Your task to perform on an android device: snooze an email in the gmail app Image 0: 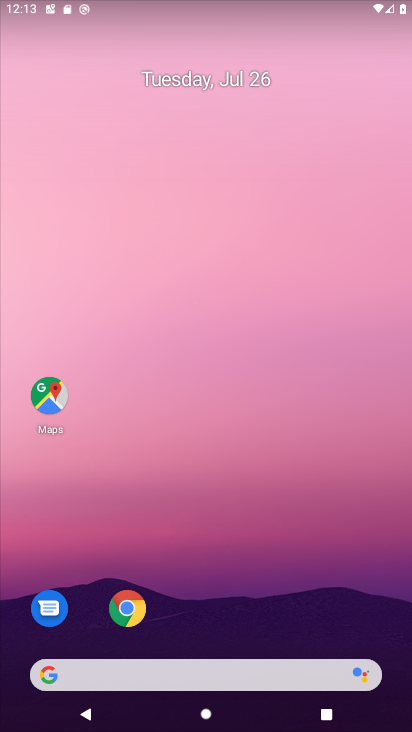
Step 0: click (195, 663)
Your task to perform on an android device: snooze an email in the gmail app Image 1: 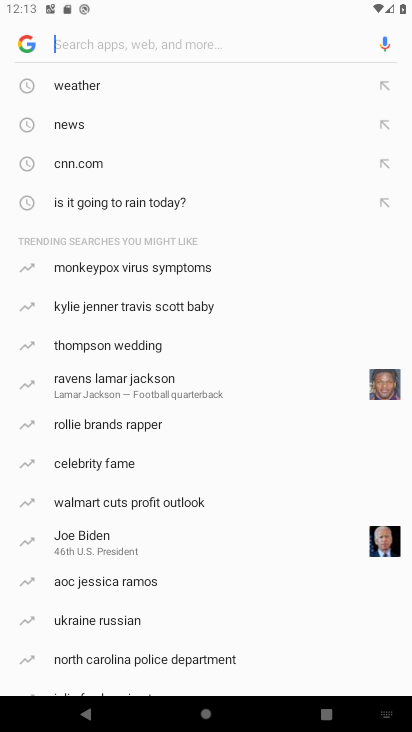
Step 1: click (100, 88)
Your task to perform on an android device: snooze an email in the gmail app Image 2: 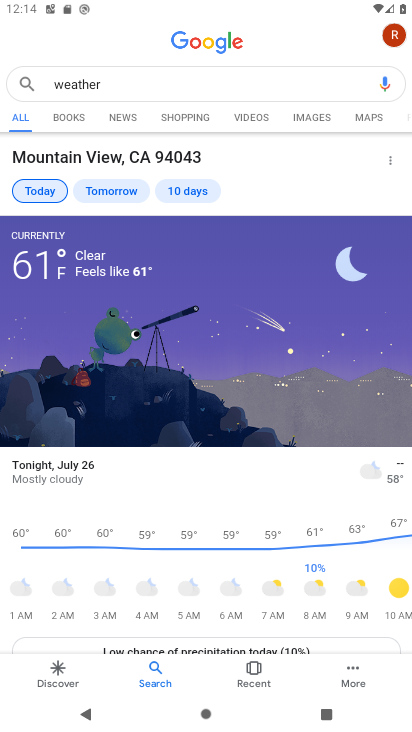
Step 2: click (100, 195)
Your task to perform on an android device: snooze an email in the gmail app Image 3: 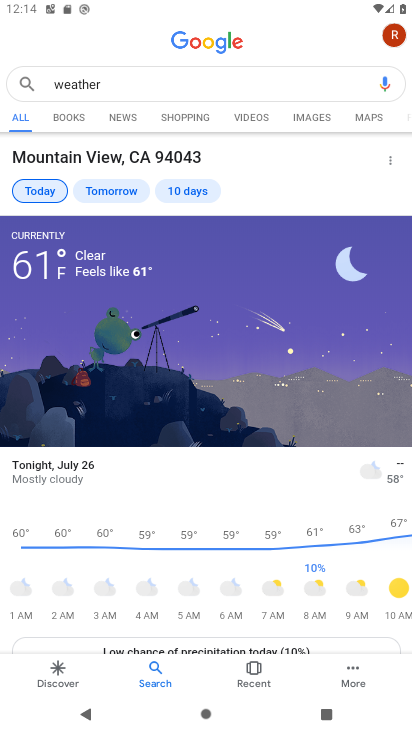
Step 3: click (109, 184)
Your task to perform on an android device: snooze an email in the gmail app Image 4: 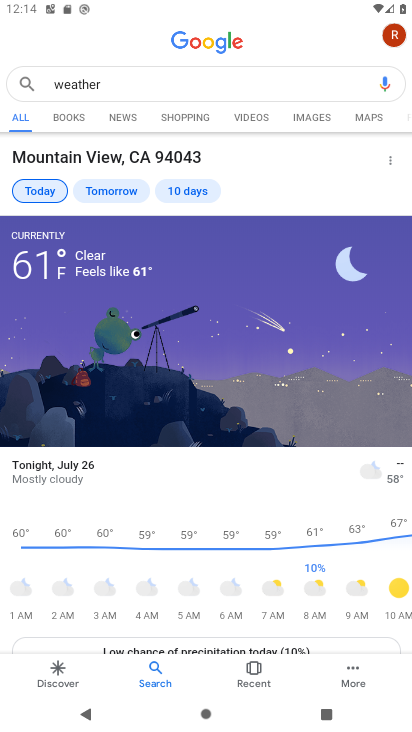
Step 4: click (109, 184)
Your task to perform on an android device: snooze an email in the gmail app Image 5: 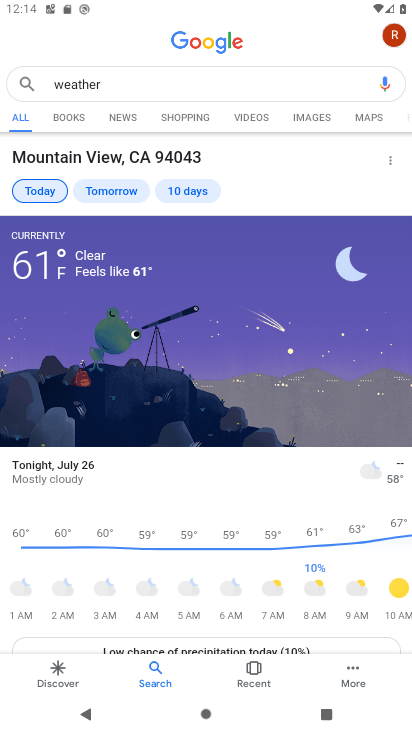
Step 5: click (109, 184)
Your task to perform on an android device: snooze an email in the gmail app Image 6: 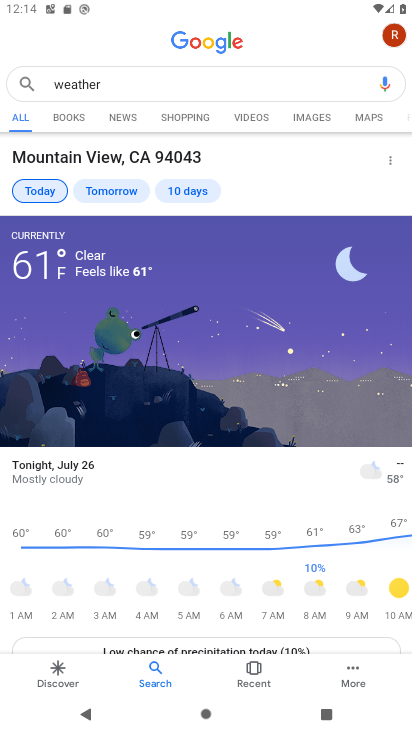
Step 6: click (109, 184)
Your task to perform on an android device: snooze an email in the gmail app Image 7: 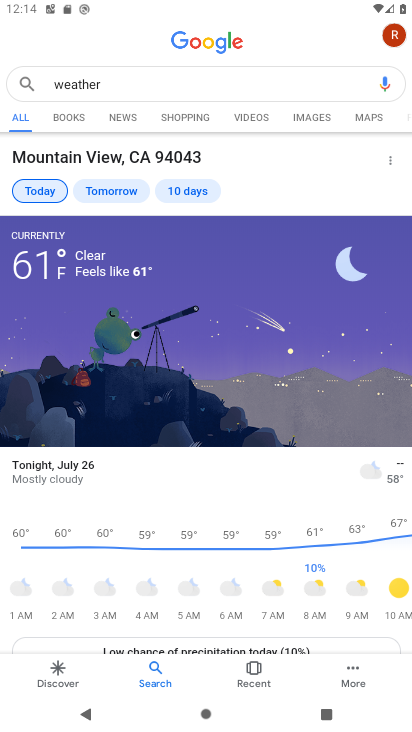
Step 7: click (135, 189)
Your task to perform on an android device: snooze an email in the gmail app Image 8: 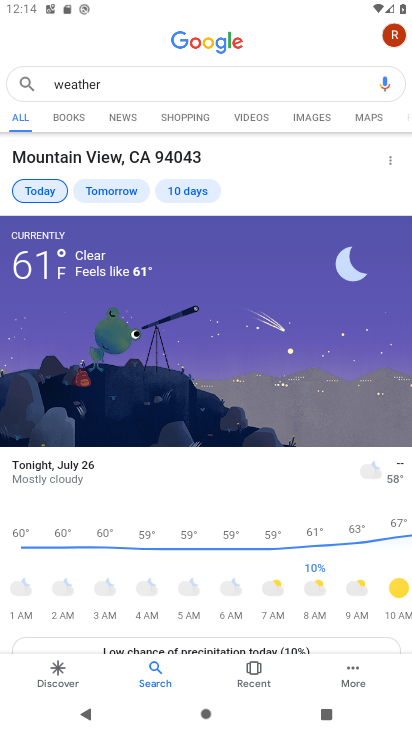
Step 8: click (135, 189)
Your task to perform on an android device: snooze an email in the gmail app Image 9: 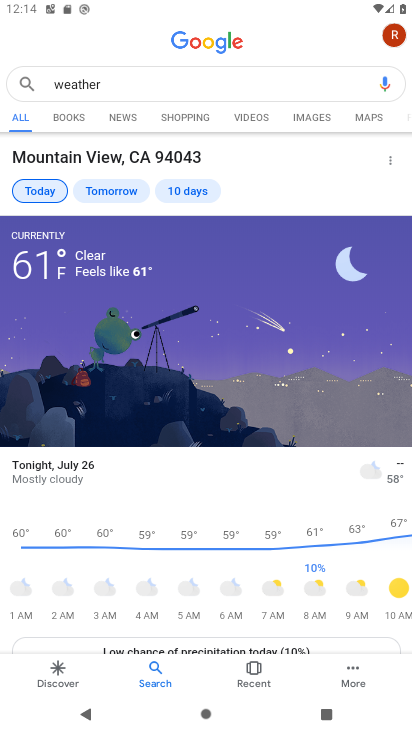
Step 9: click (113, 190)
Your task to perform on an android device: snooze an email in the gmail app Image 10: 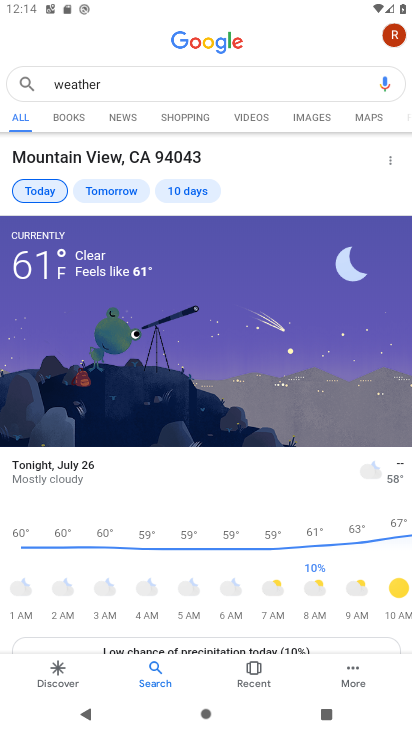
Step 10: click (113, 190)
Your task to perform on an android device: snooze an email in the gmail app Image 11: 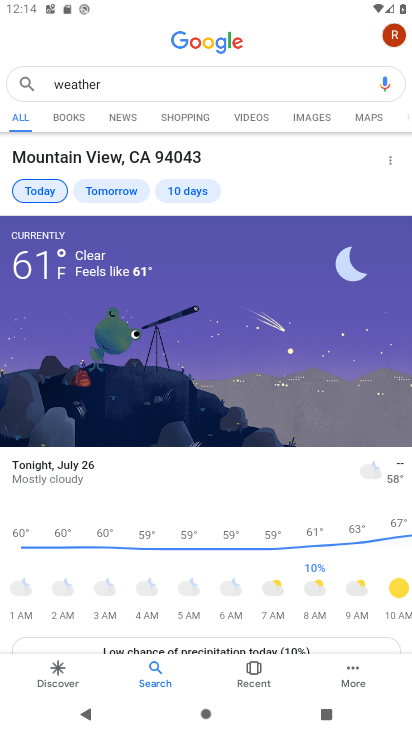
Step 11: click (113, 190)
Your task to perform on an android device: snooze an email in the gmail app Image 12: 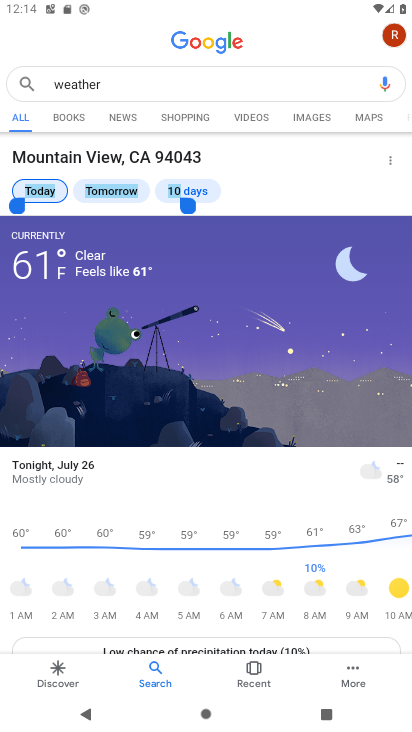
Step 12: click (109, 194)
Your task to perform on an android device: snooze an email in the gmail app Image 13: 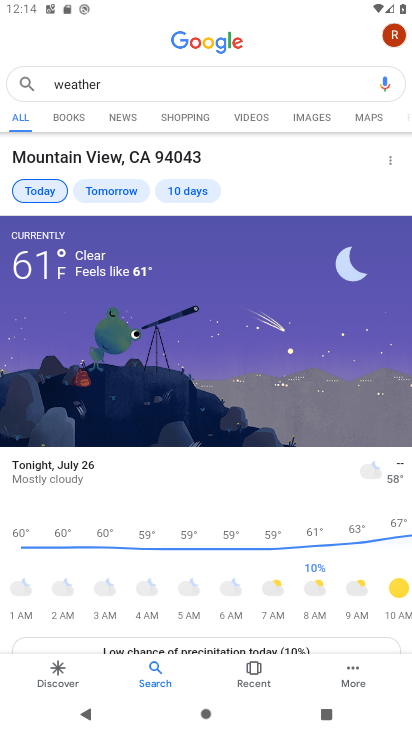
Step 13: task complete